Your task to perform on an android device: Open settings Image 0: 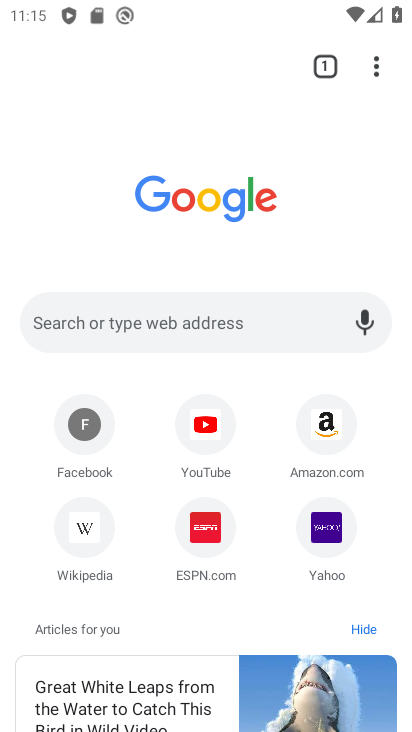
Step 0: press home button
Your task to perform on an android device: Open settings Image 1: 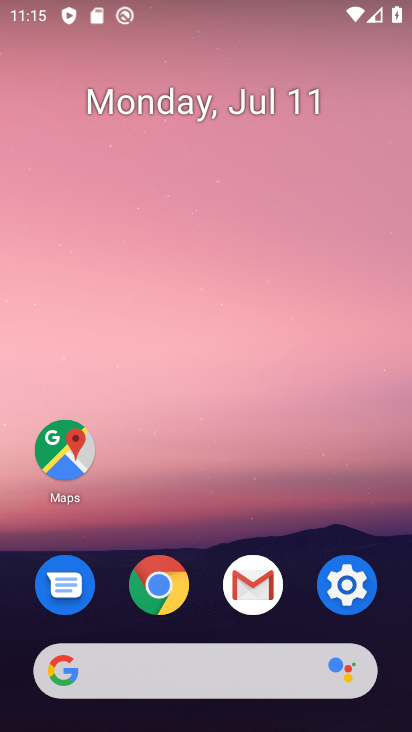
Step 1: click (346, 592)
Your task to perform on an android device: Open settings Image 2: 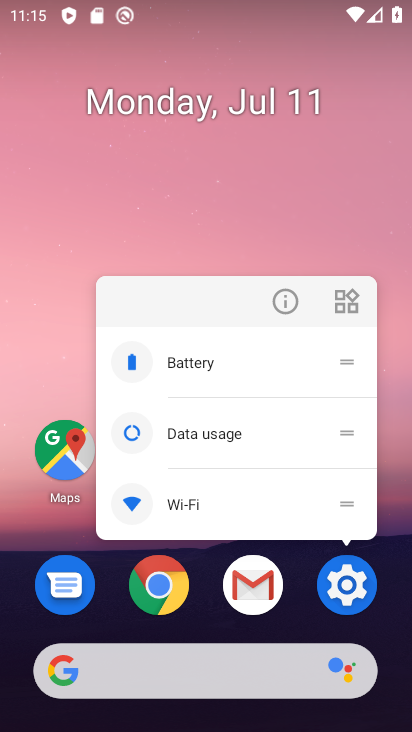
Step 2: click (341, 578)
Your task to perform on an android device: Open settings Image 3: 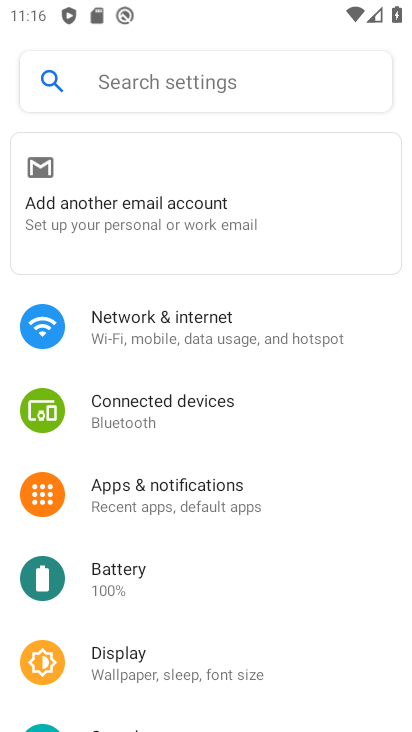
Step 3: task complete